Your task to perform on an android device: open chrome and create a bookmark for the current page Image 0: 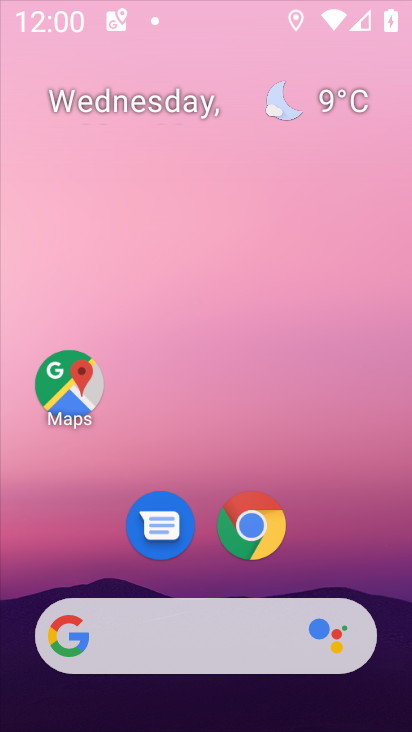
Step 0: click (339, 184)
Your task to perform on an android device: open chrome and create a bookmark for the current page Image 1: 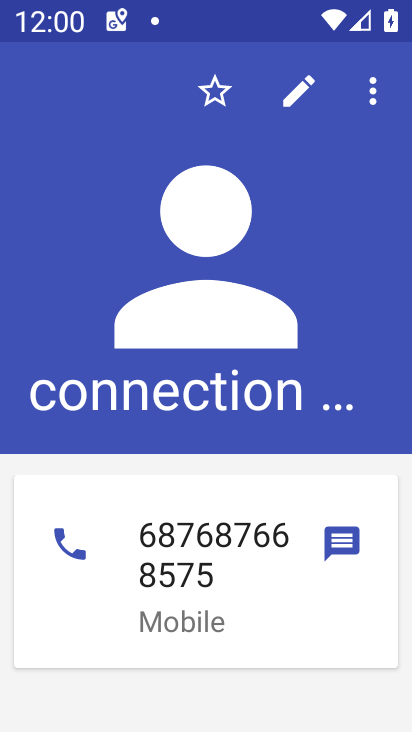
Step 1: press home button
Your task to perform on an android device: open chrome and create a bookmark for the current page Image 2: 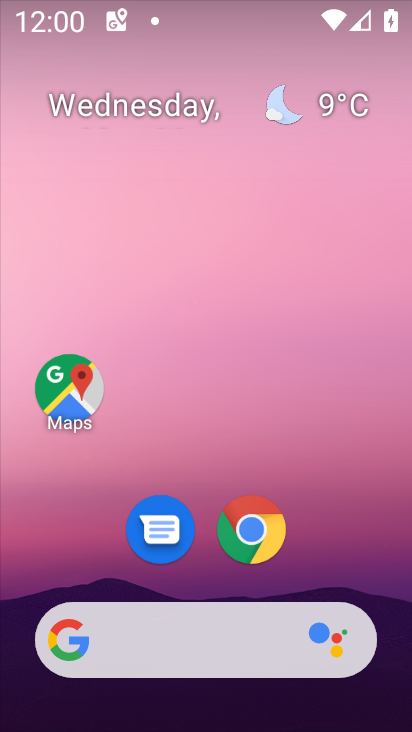
Step 2: click (269, 556)
Your task to perform on an android device: open chrome and create a bookmark for the current page Image 3: 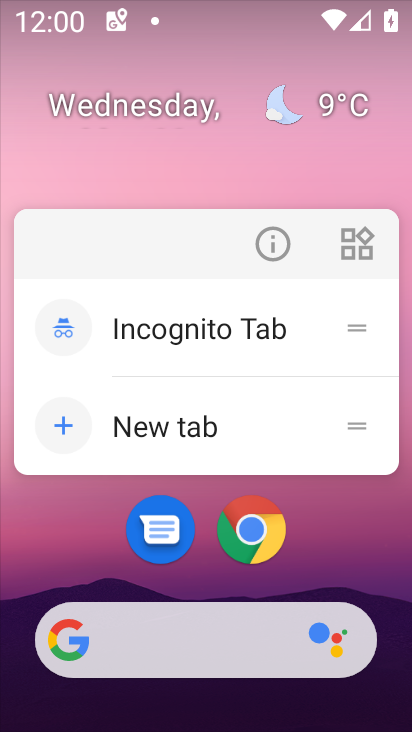
Step 3: click (266, 541)
Your task to perform on an android device: open chrome and create a bookmark for the current page Image 4: 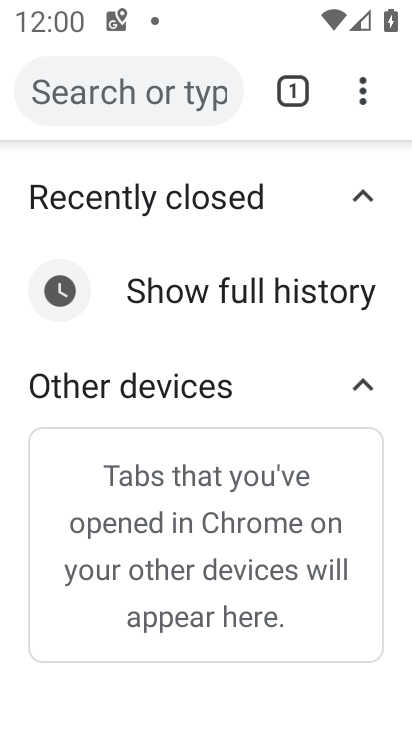
Step 4: task complete